Your task to perform on an android device: turn off airplane mode Image 0: 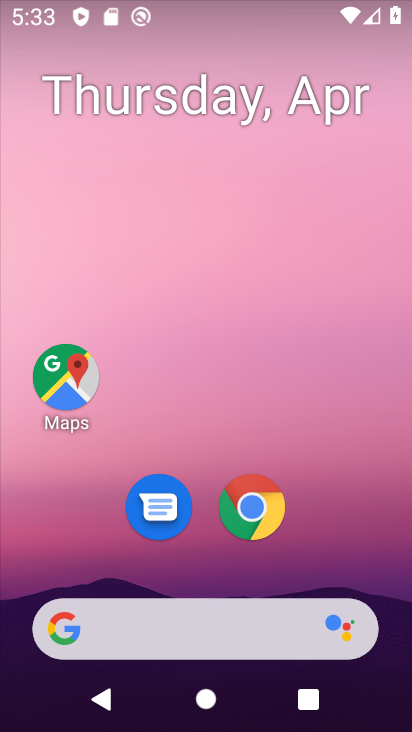
Step 0: drag from (268, 3) to (288, 416)
Your task to perform on an android device: turn off airplane mode Image 1: 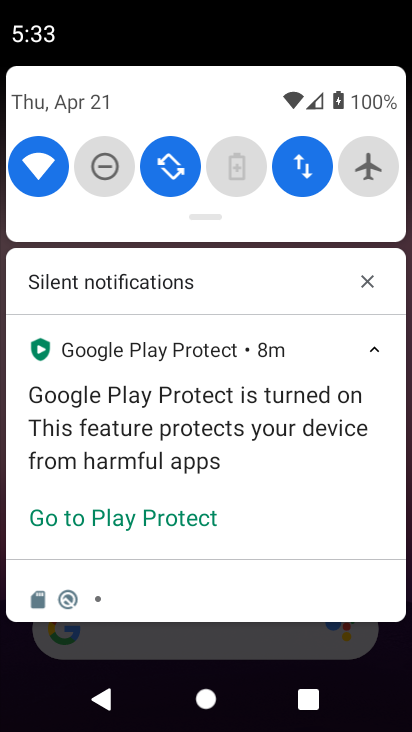
Step 1: task complete